Your task to perform on an android device: turn on location history Image 0: 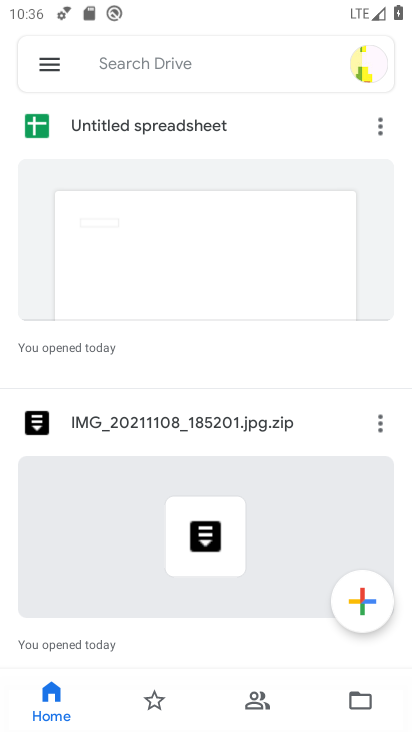
Step 0: press home button
Your task to perform on an android device: turn on location history Image 1: 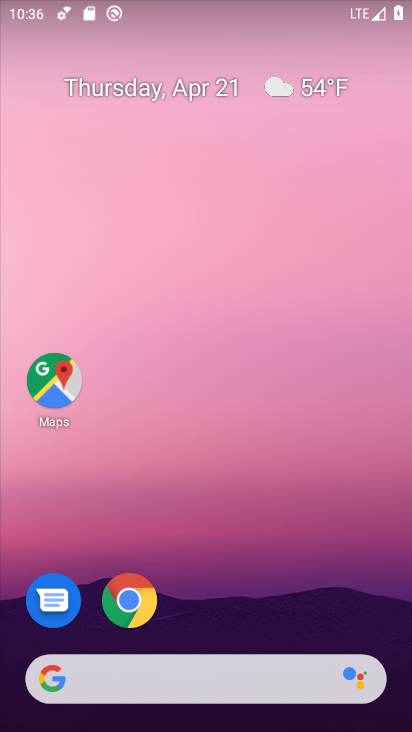
Step 1: drag from (260, 520) to (258, 51)
Your task to perform on an android device: turn on location history Image 2: 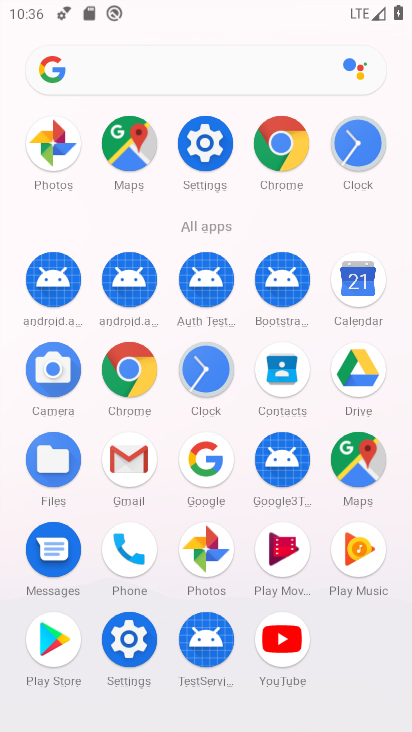
Step 2: click (203, 142)
Your task to perform on an android device: turn on location history Image 3: 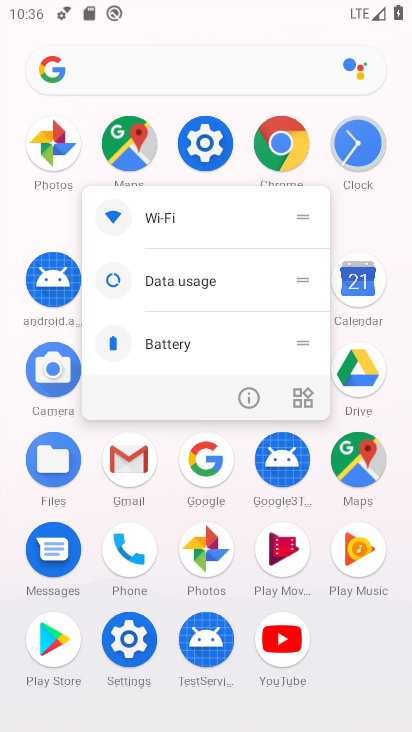
Step 3: click (205, 146)
Your task to perform on an android device: turn on location history Image 4: 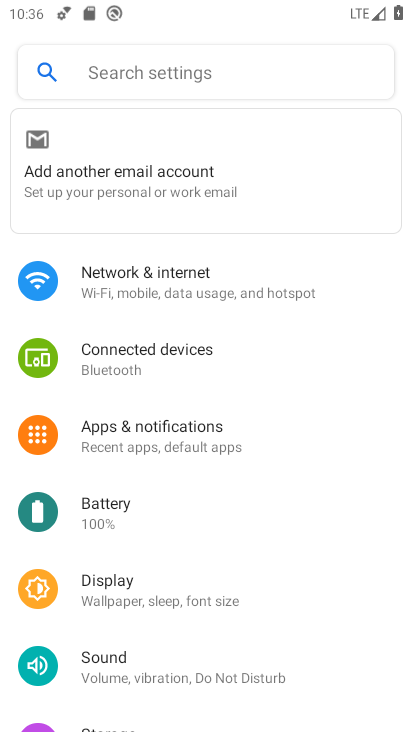
Step 4: drag from (212, 611) to (224, 214)
Your task to perform on an android device: turn on location history Image 5: 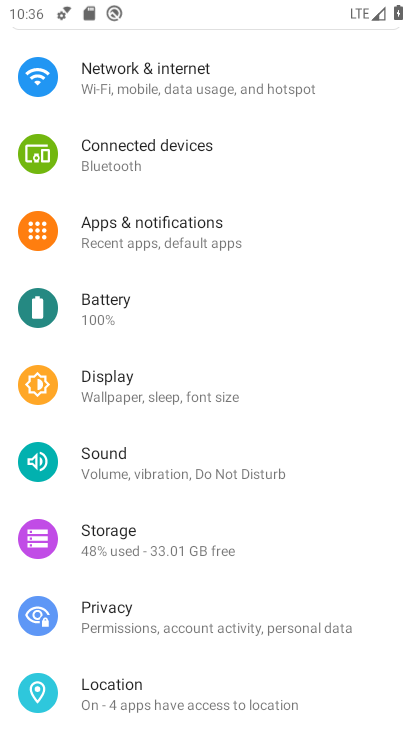
Step 5: click (167, 701)
Your task to perform on an android device: turn on location history Image 6: 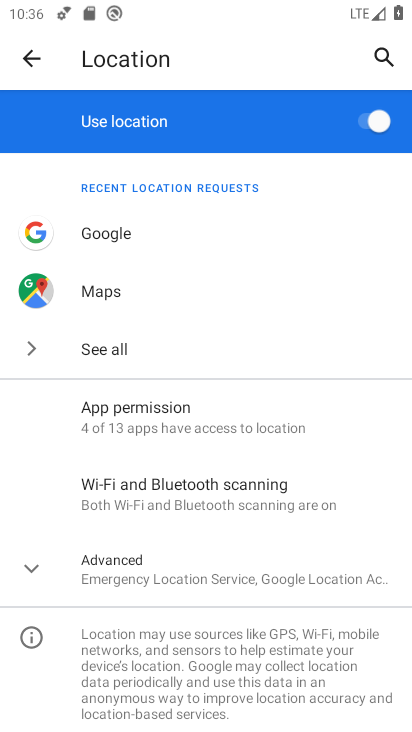
Step 6: click (156, 560)
Your task to perform on an android device: turn on location history Image 7: 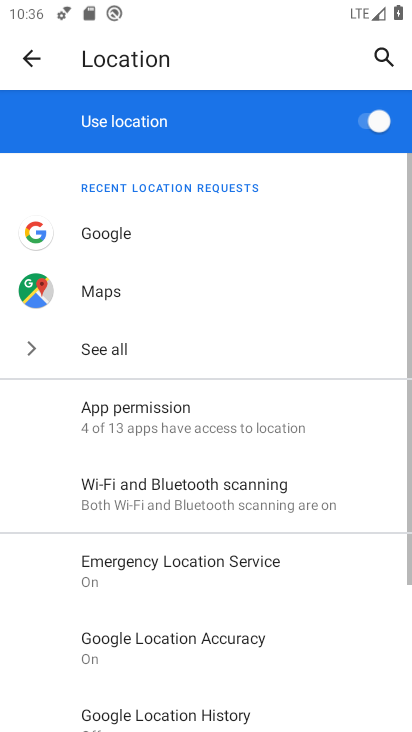
Step 7: drag from (221, 631) to (261, 181)
Your task to perform on an android device: turn on location history Image 8: 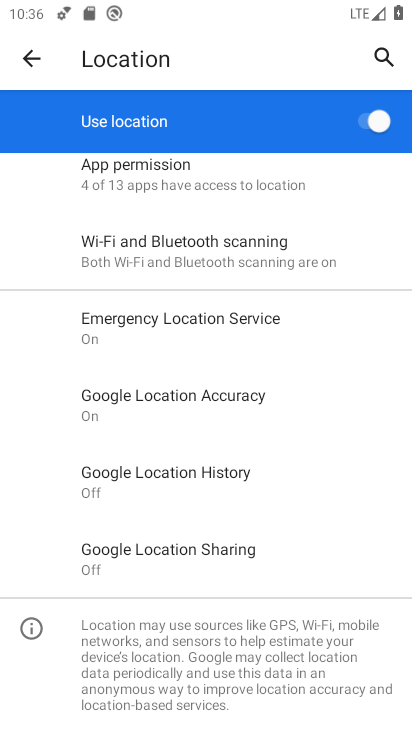
Step 8: drag from (199, 572) to (207, 170)
Your task to perform on an android device: turn on location history Image 9: 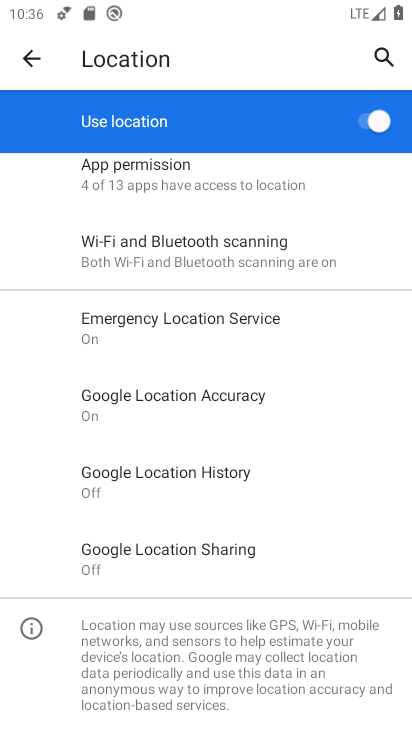
Step 9: click (212, 468)
Your task to perform on an android device: turn on location history Image 10: 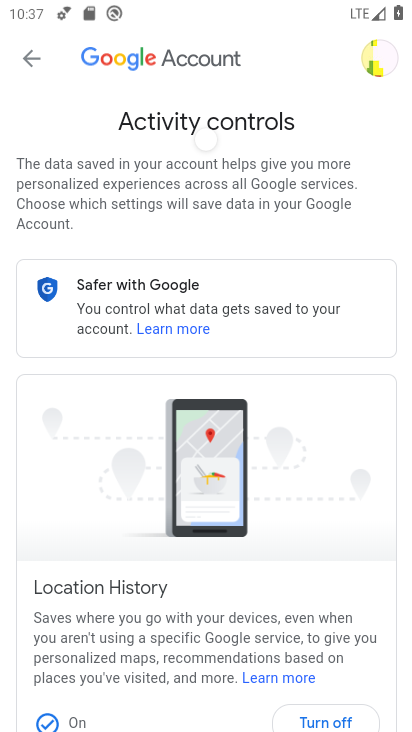
Step 10: drag from (209, 582) to (227, 172)
Your task to perform on an android device: turn on location history Image 11: 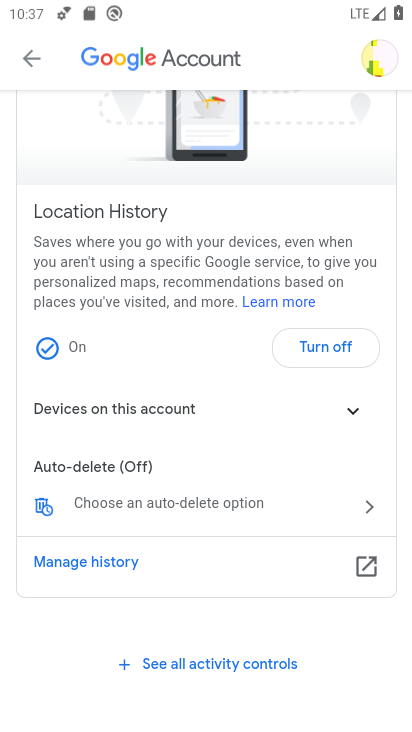
Step 11: click (44, 505)
Your task to perform on an android device: turn on location history Image 12: 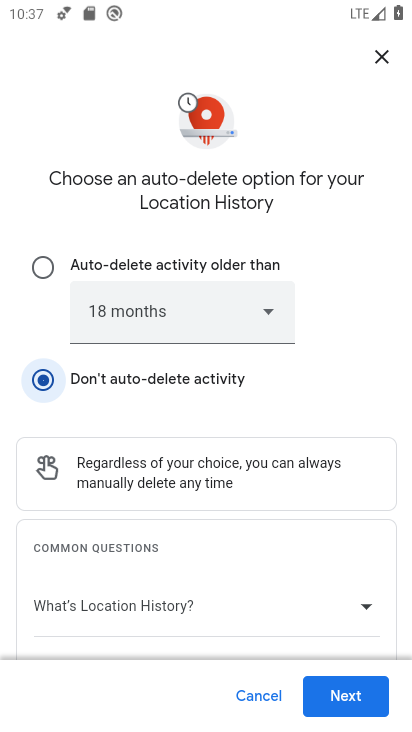
Step 12: click (346, 698)
Your task to perform on an android device: turn on location history Image 13: 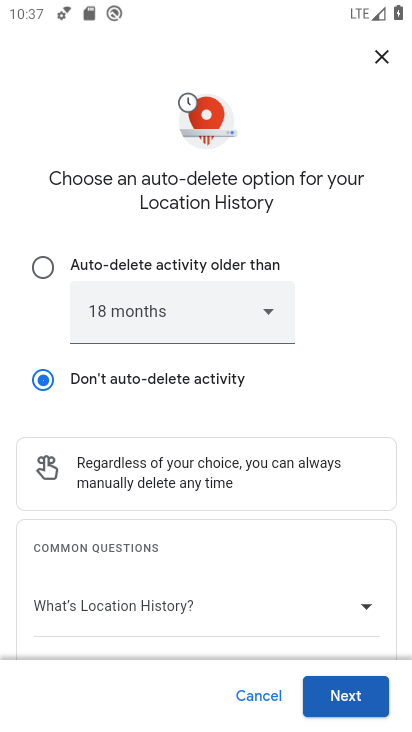
Step 13: click (343, 702)
Your task to perform on an android device: turn on location history Image 14: 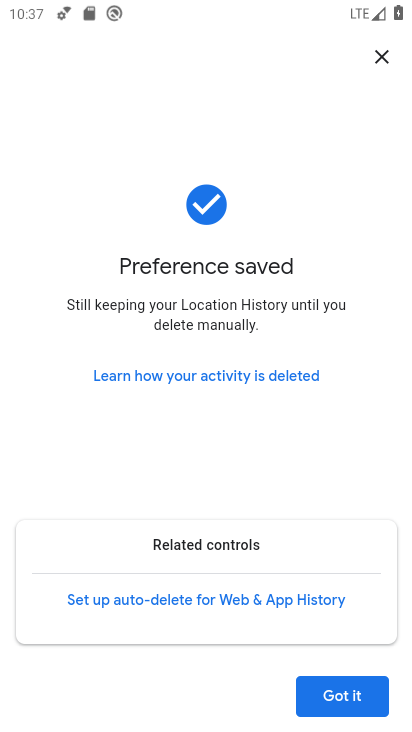
Step 14: click (316, 688)
Your task to perform on an android device: turn on location history Image 15: 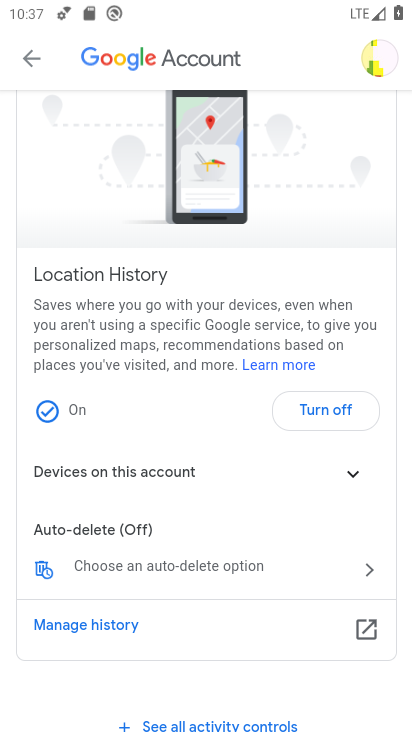
Step 15: task complete